Your task to perform on an android device: find photos in the google photos app Image 0: 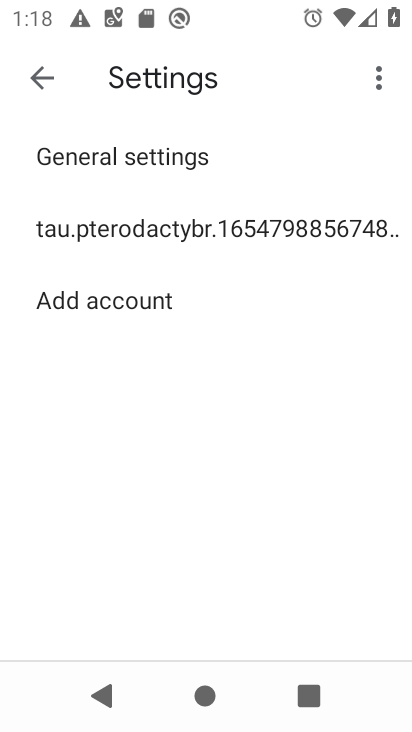
Step 0: press back button
Your task to perform on an android device: find photos in the google photos app Image 1: 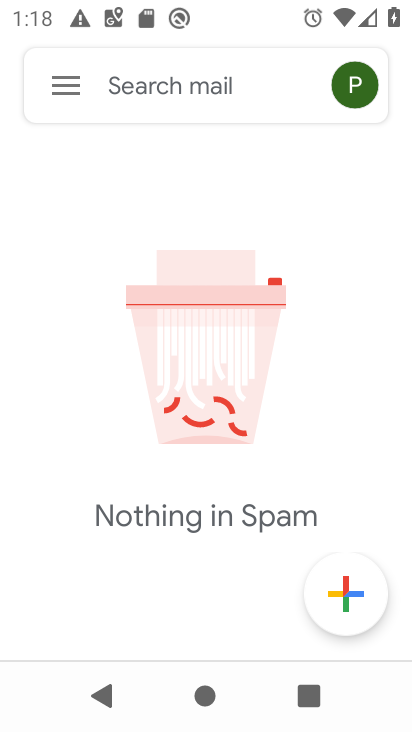
Step 1: press back button
Your task to perform on an android device: find photos in the google photos app Image 2: 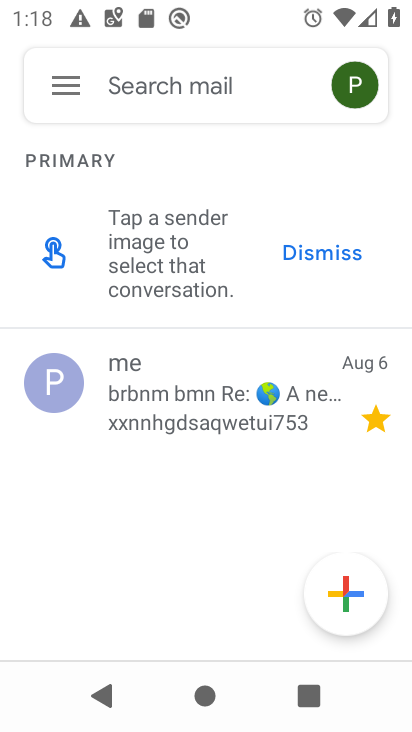
Step 2: press back button
Your task to perform on an android device: find photos in the google photos app Image 3: 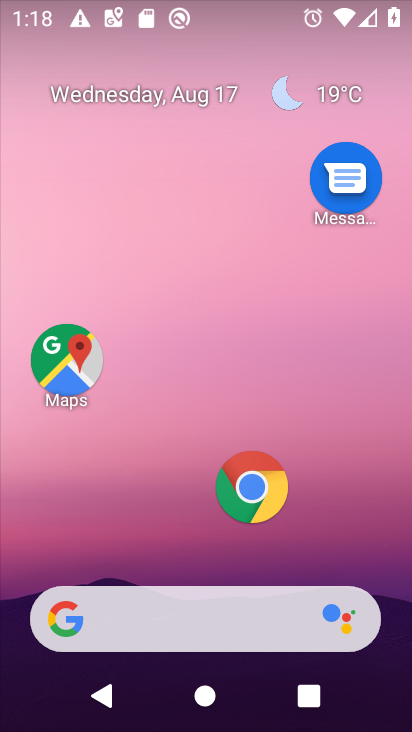
Step 3: drag from (186, 474) to (210, 24)
Your task to perform on an android device: find photos in the google photos app Image 4: 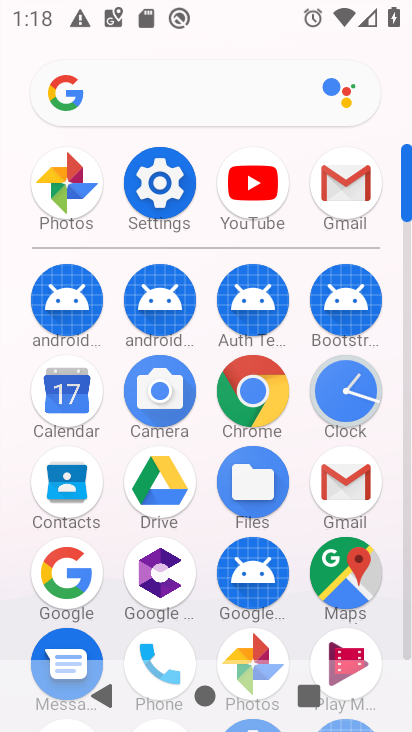
Step 4: click (256, 647)
Your task to perform on an android device: find photos in the google photos app Image 5: 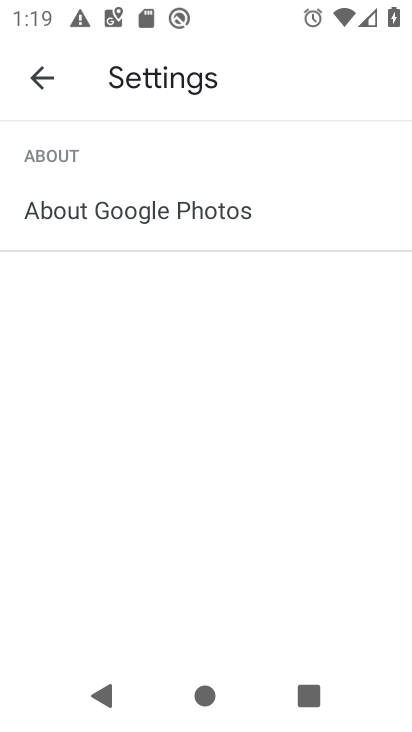
Step 5: press back button
Your task to perform on an android device: find photos in the google photos app Image 6: 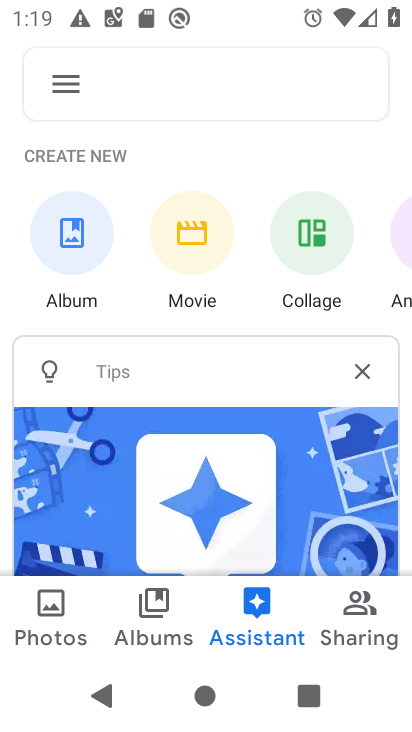
Step 6: press back button
Your task to perform on an android device: find photos in the google photos app Image 7: 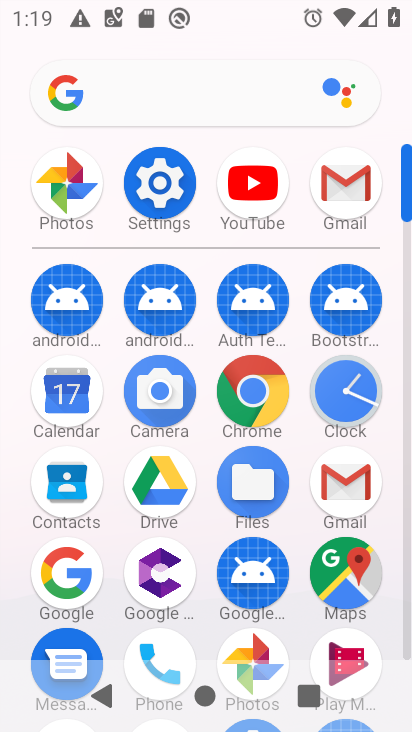
Step 7: click (92, 187)
Your task to perform on an android device: find photos in the google photos app Image 8: 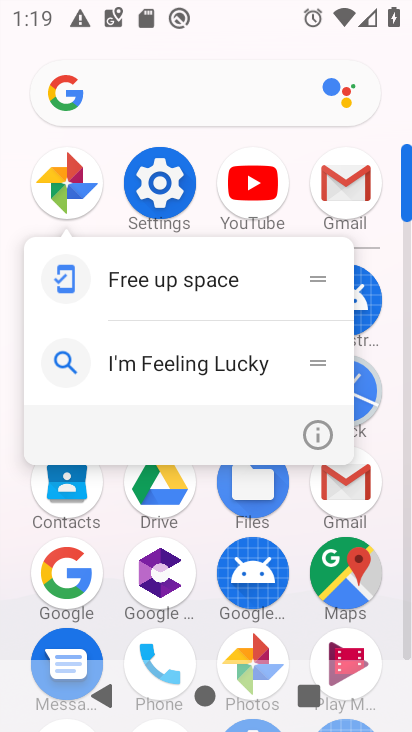
Step 8: click (50, 175)
Your task to perform on an android device: find photos in the google photos app Image 9: 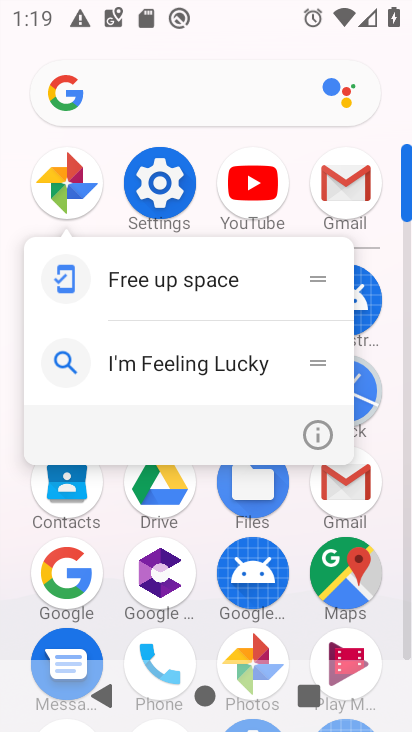
Step 9: click (67, 180)
Your task to perform on an android device: find photos in the google photos app Image 10: 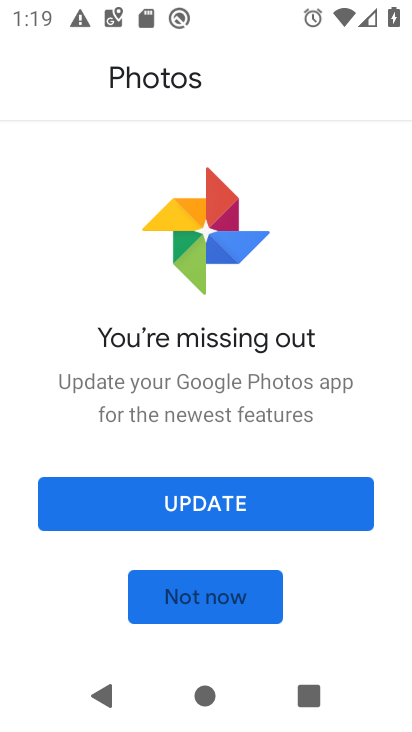
Step 10: click (190, 581)
Your task to perform on an android device: find photos in the google photos app Image 11: 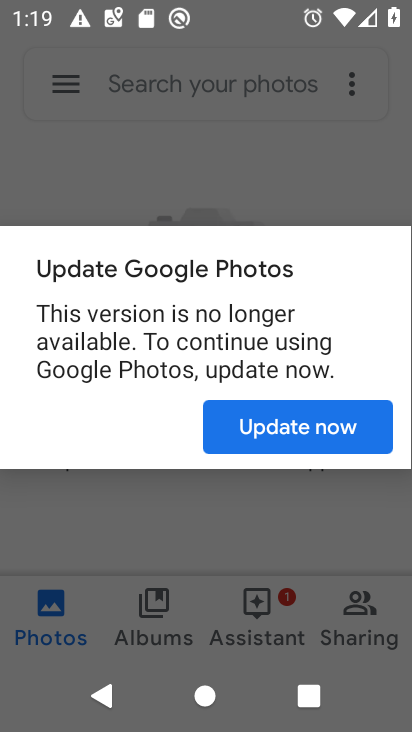
Step 11: click (273, 424)
Your task to perform on an android device: find photos in the google photos app Image 12: 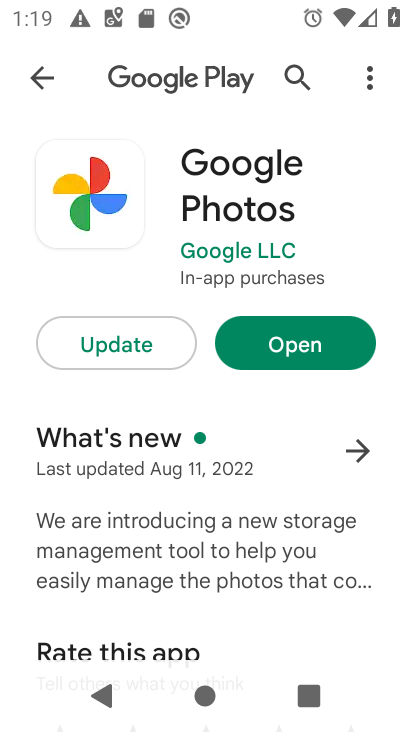
Step 12: click (287, 335)
Your task to perform on an android device: find photos in the google photos app Image 13: 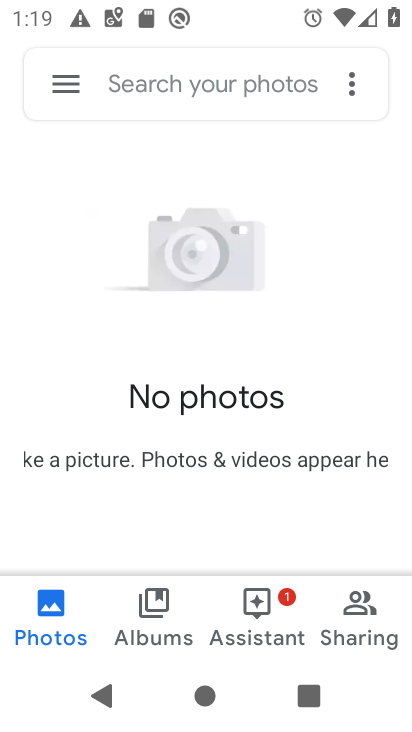
Step 13: task complete